Your task to perform on an android device: toggle improve location accuracy Image 0: 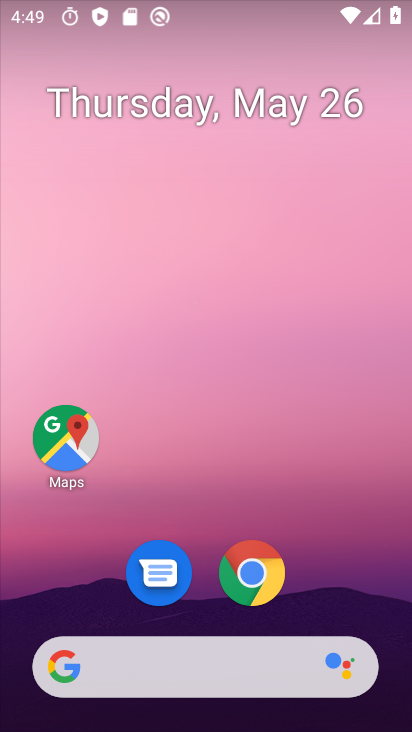
Step 0: drag from (316, 606) to (258, 63)
Your task to perform on an android device: toggle improve location accuracy Image 1: 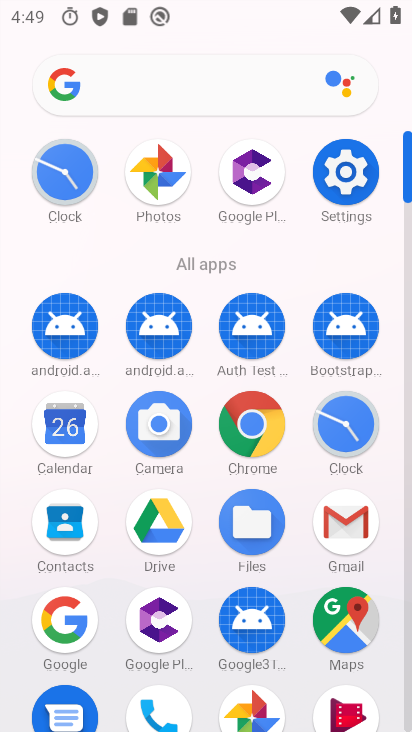
Step 1: click (342, 184)
Your task to perform on an android device: toggle improve location accuracy Image 2: 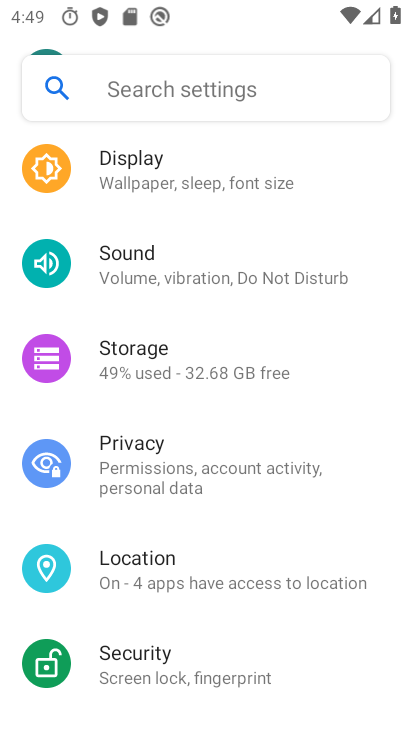
Step 2: drag from (152, 229) to (155, 726)
Your task to perform on an android device: toggle improve location accuracy Image 3: 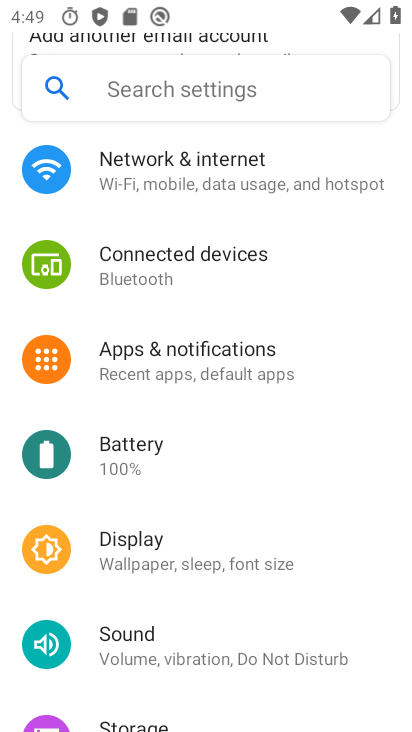
Step 3: click (132, 183)
Your task to perform on an android device: toggle improve location accuracy Image 4: 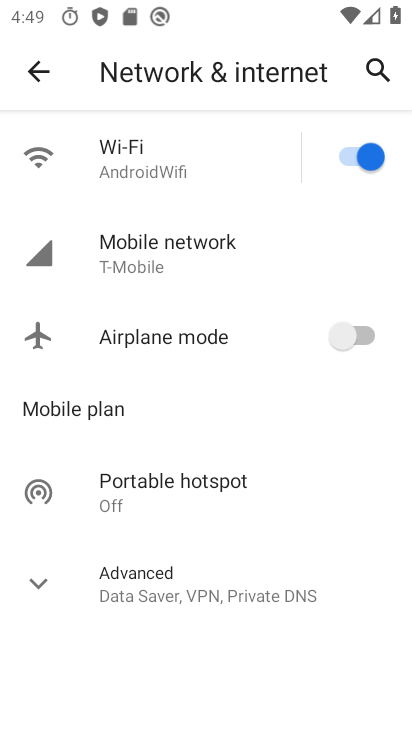
Step 4: task complete